Your task to perform on an android device: Clear the shopping cart on bestbuy. Add usb-c to usb-b to the cart on bestbuy Image 0: 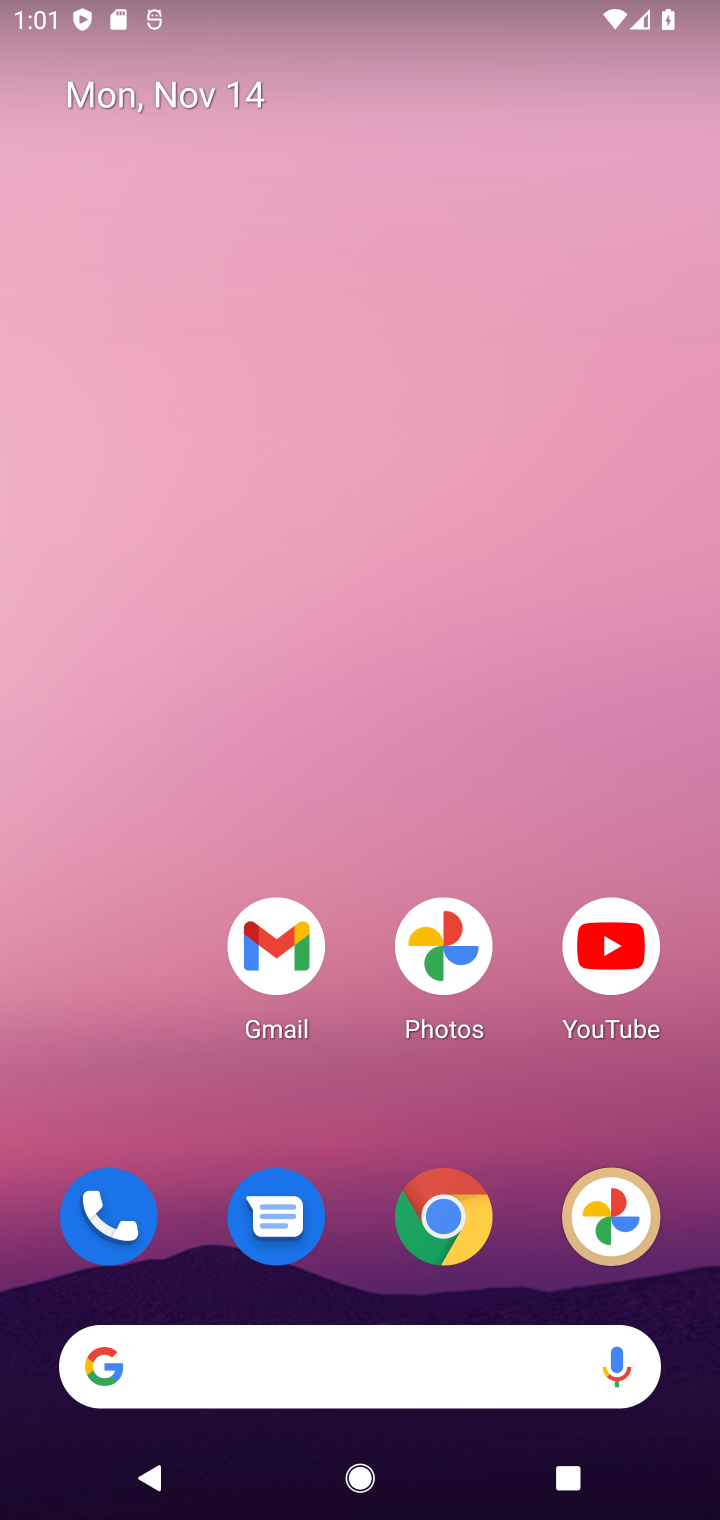
Step 0: click (441, 1204)
Your task to perform on an android device: Clear the shopping cart on bestbuy. Add usb-c to usb-b to the cart on bestbuy Image 1: 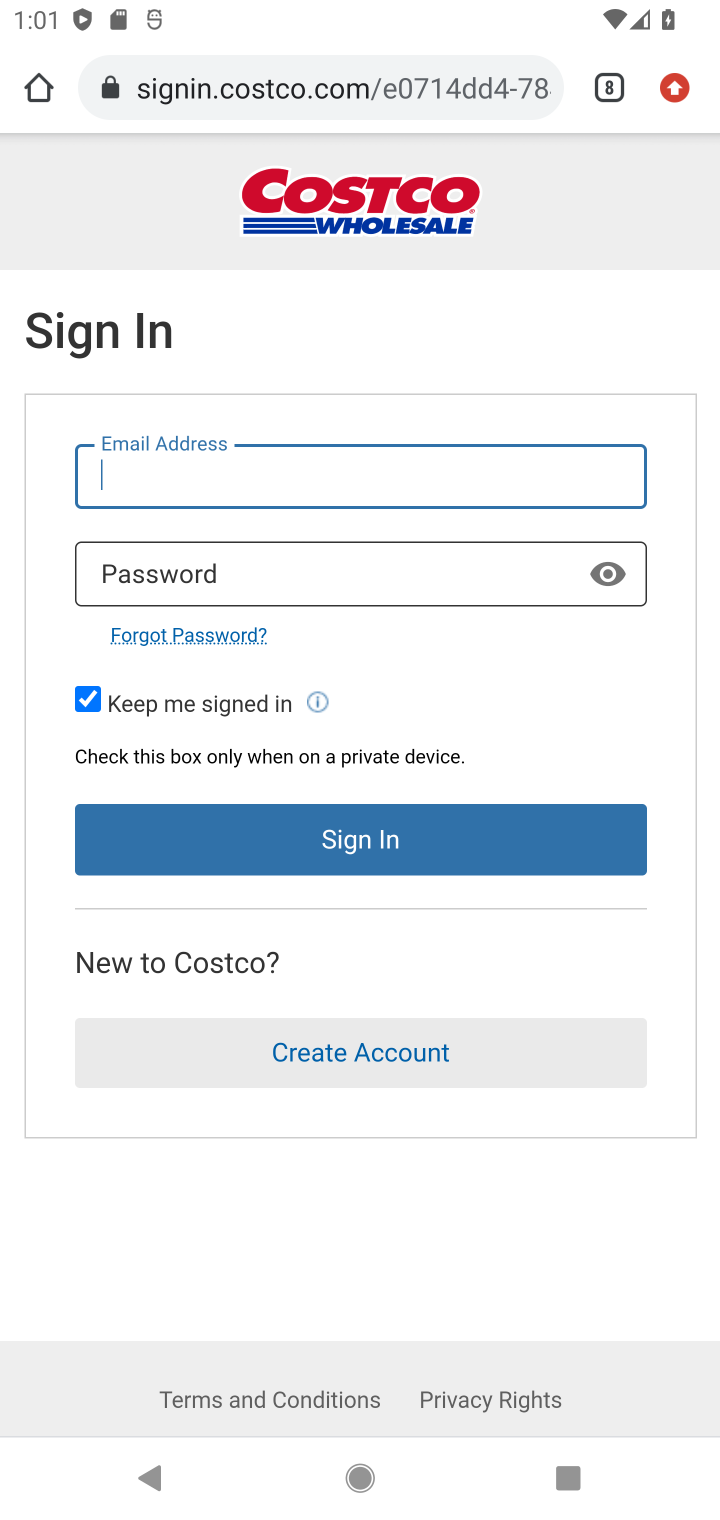
Step 1: click (602, 84)
Your task to perform on an android device: Clear the shopping cart on bestbuy. Add usb-c to usb-b to the cart on bestbuy Image 2: 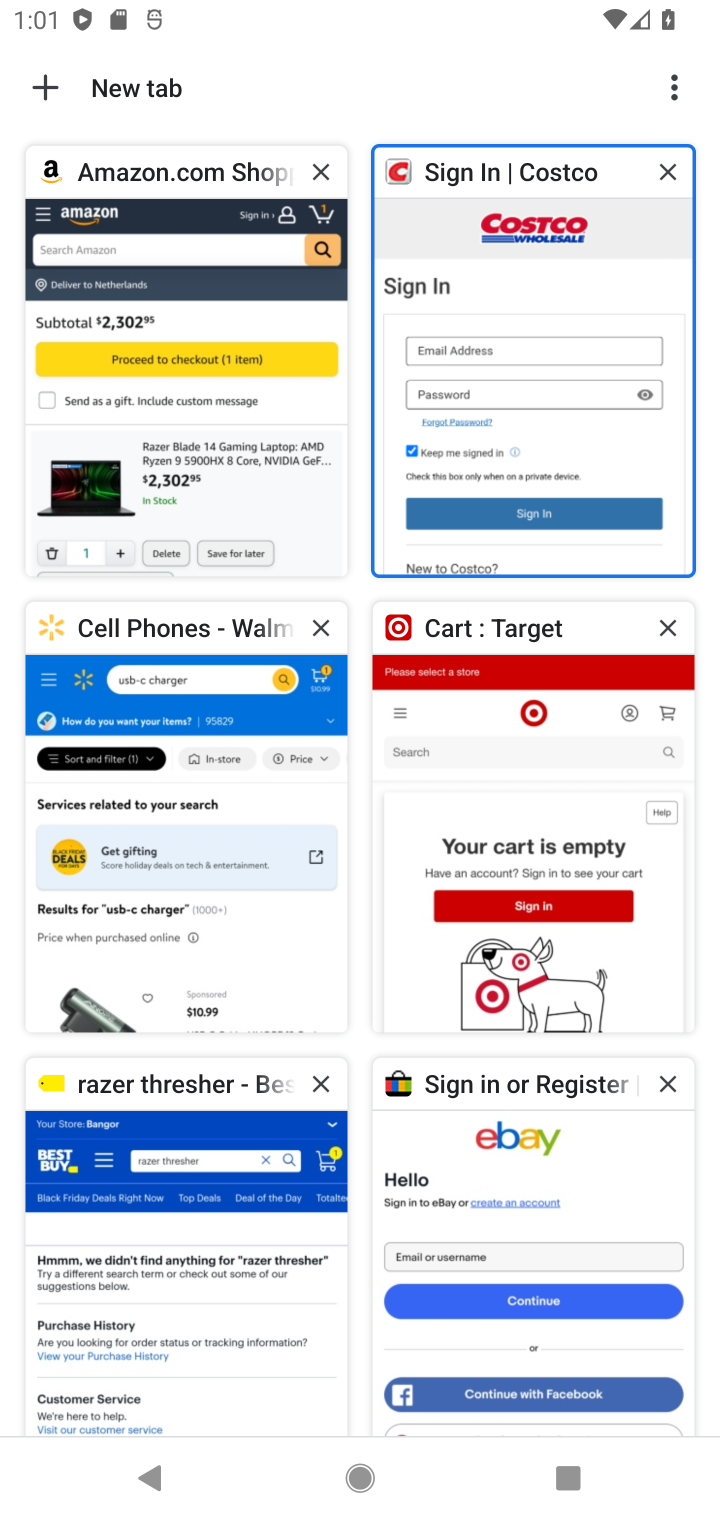
Step 2: click (91, 1319)
Your task to perform on an android device: Clear the shopping cart on bestbuy. Add usb-c to usb-b to the cart on bestbuy Image 3: 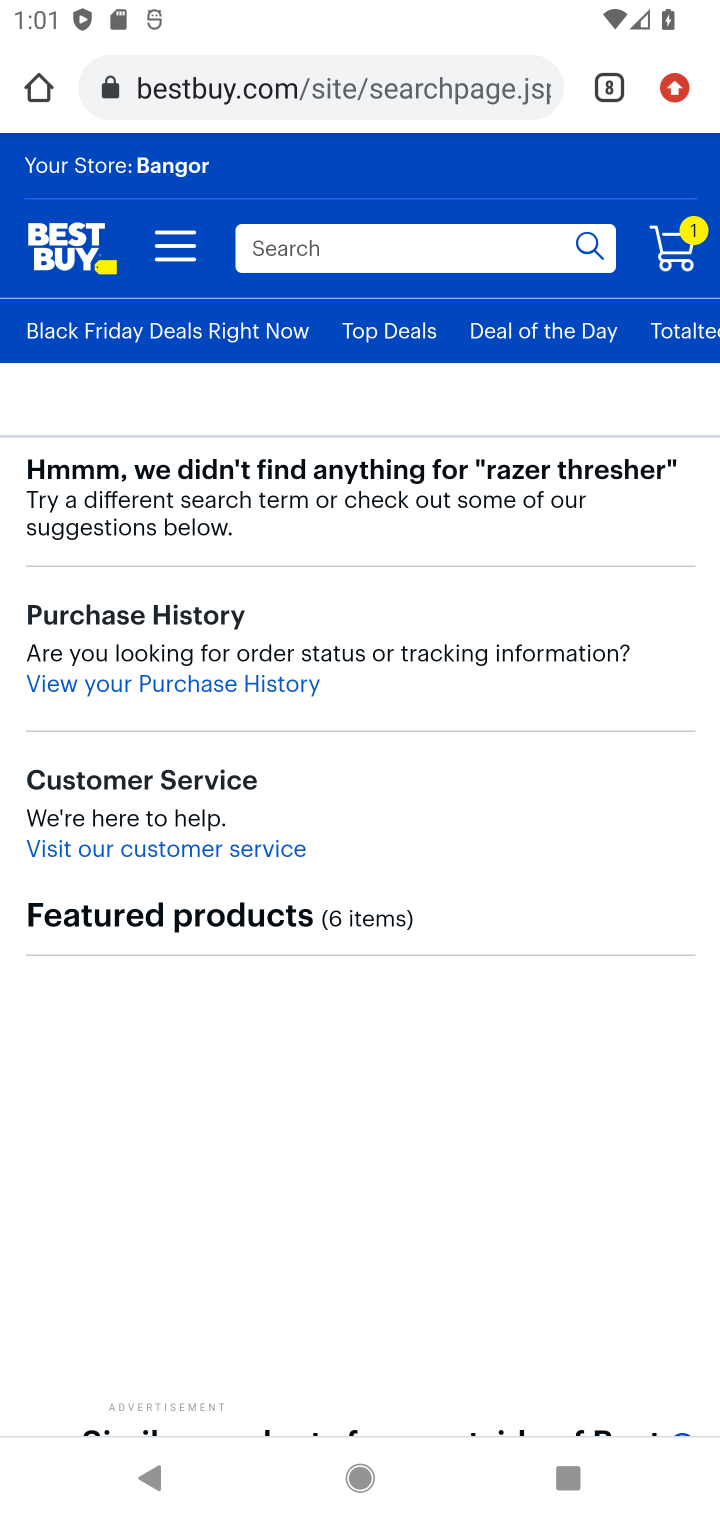
Step 3: click (352, 248)
Your task to perform on an android device: Clear the shopping cart on bestbuy. Add usb-c to usb-b to the cart on bestbuy Image 4: 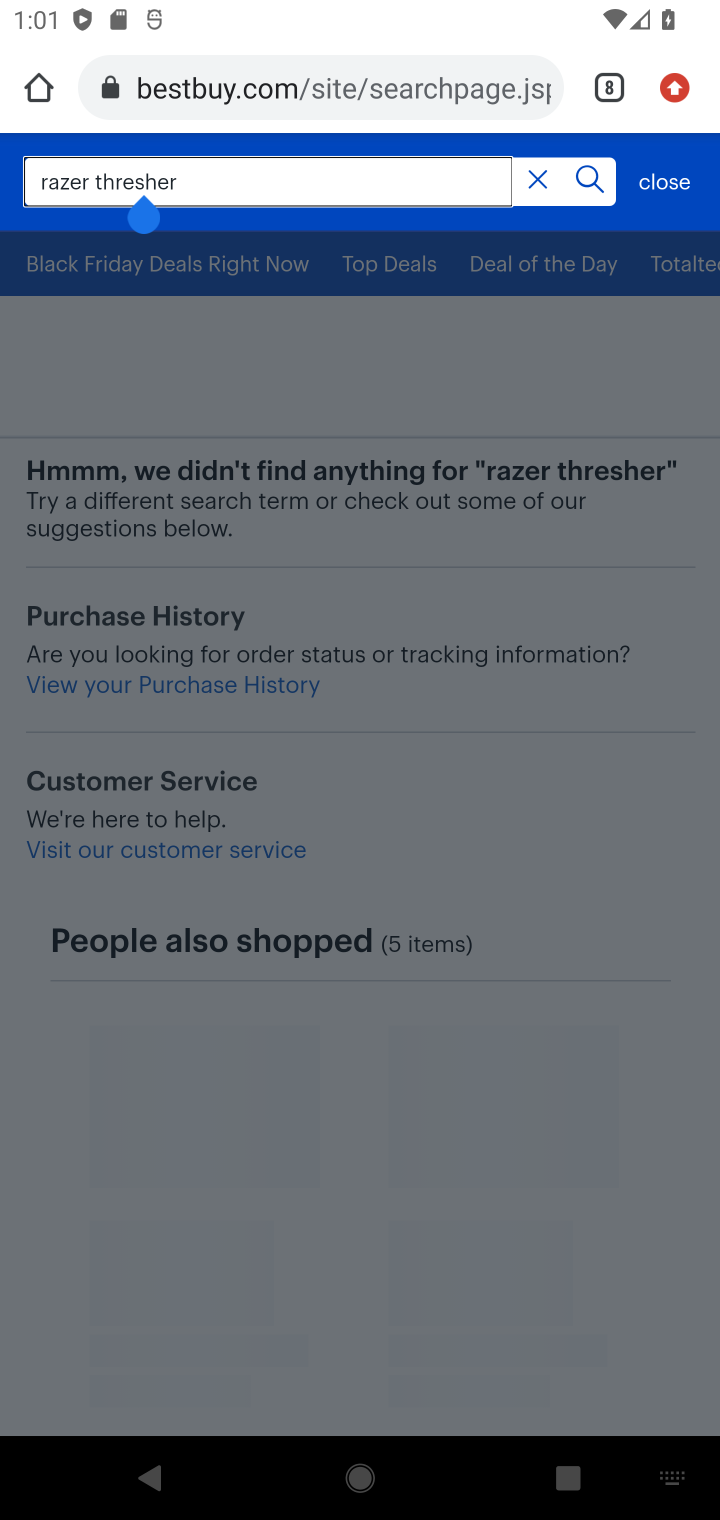
Step 4: type "usb-c to usb-b"
Your task to perform on an android device: Clear the shopping cart on bestbuy. Add usb-c to usb-b to the cart on bestbuy Image 5: 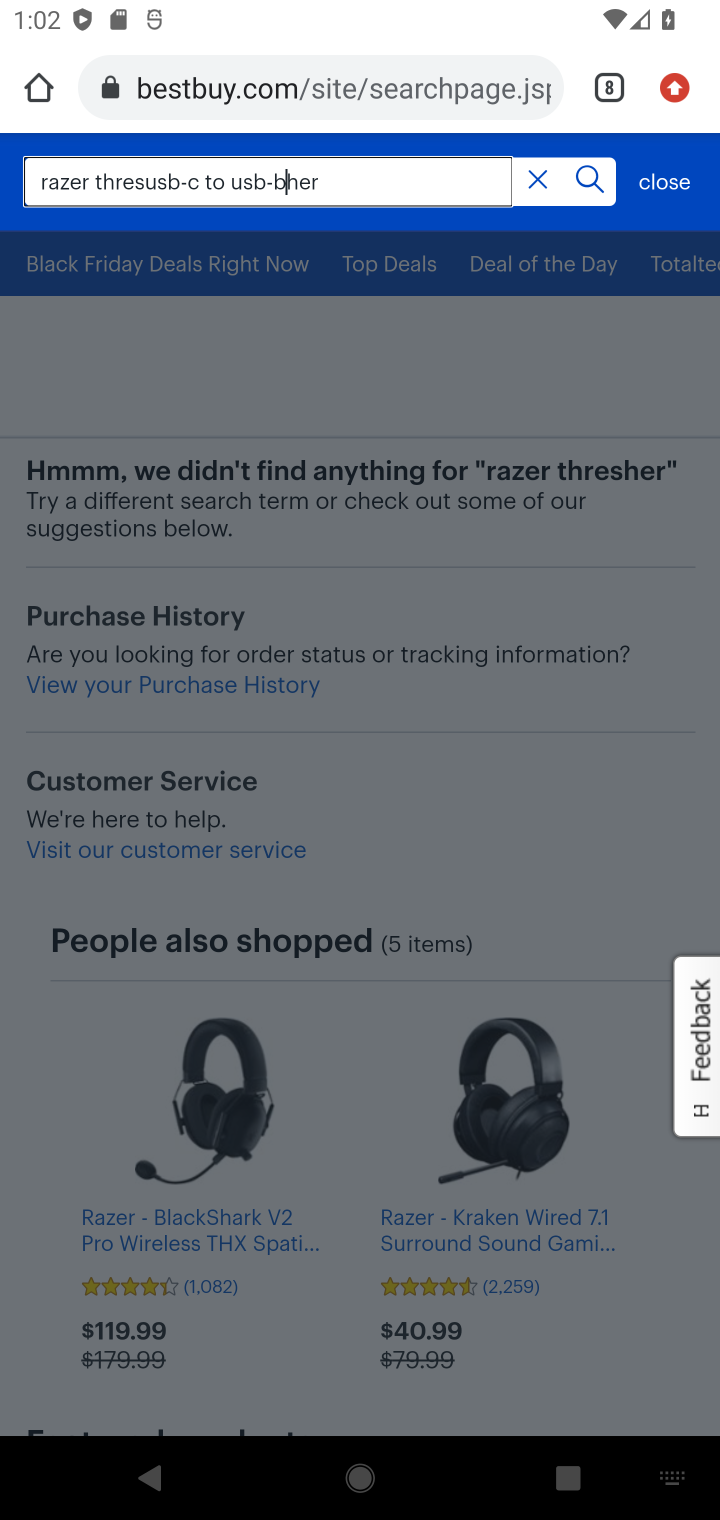
Step 5: click (543, 185)
Your task to perform on an android device: Clear the shopping cart on bestbuy. Add usb-c to usb-b to the cart on bestbuy Image 6: 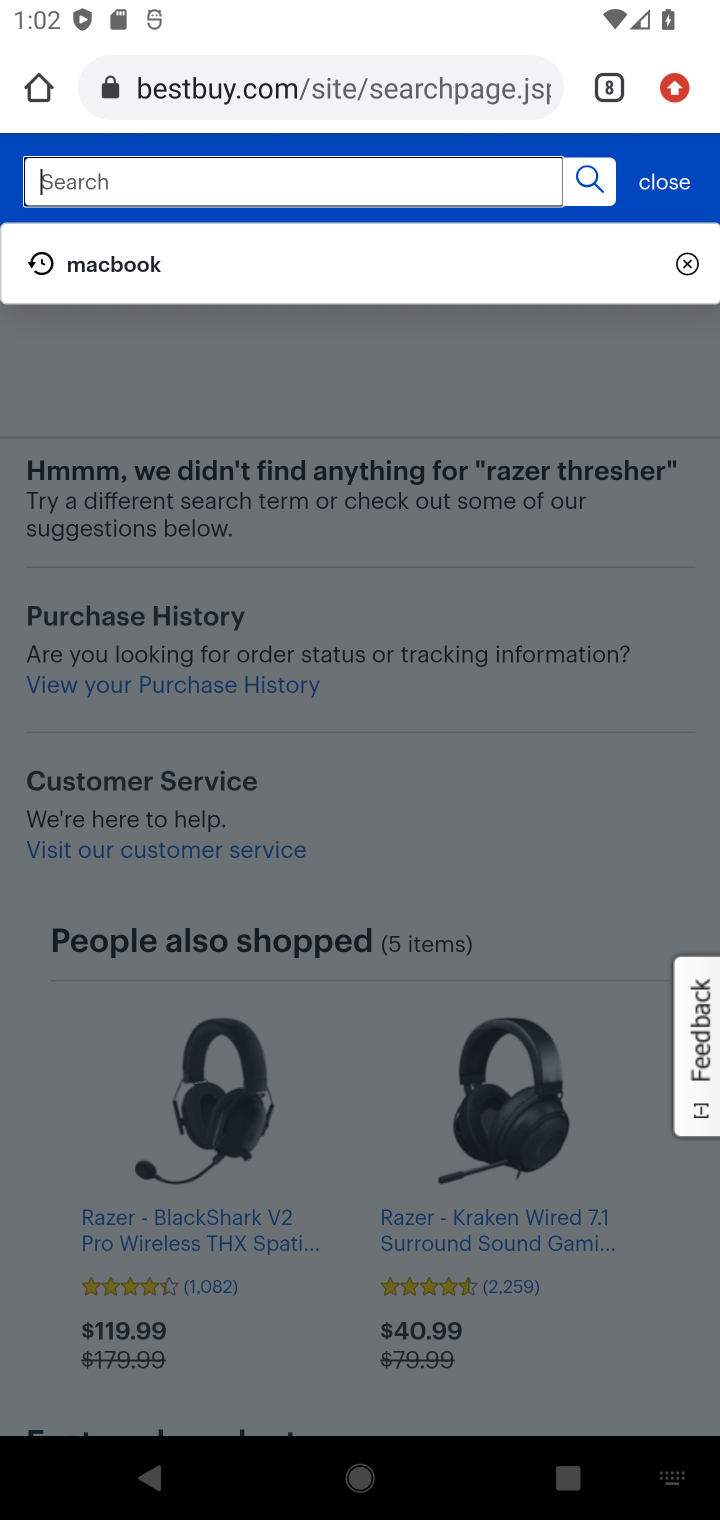
Step 6: type "usb-c to usb-b"
Your task to perform on an android device: Clear the shopping cart on bestbuy. Add usb-c to usb-b to the cart on bestbuy Image 7: 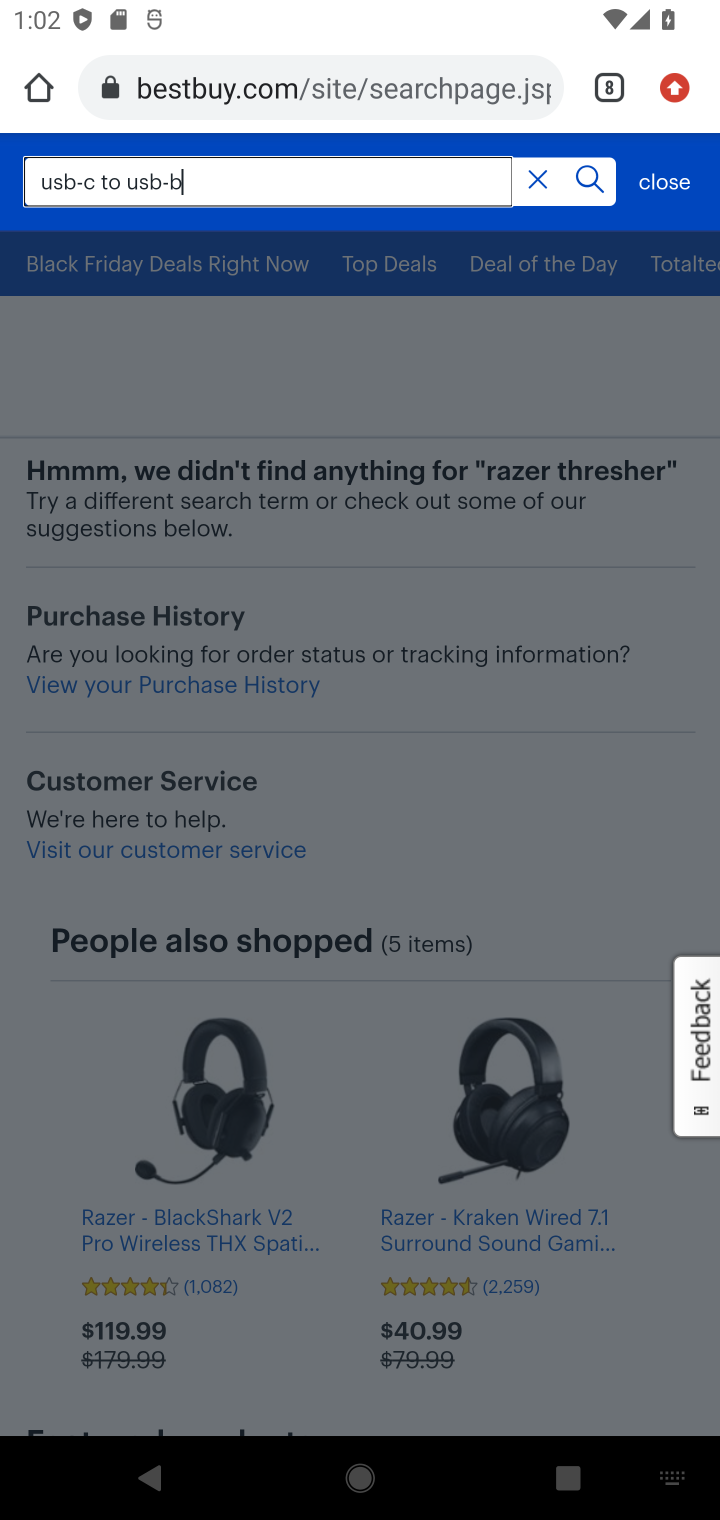
Step 7: click (581, 174)
Your task to perform on an android device: Clear the shopping cart on bestbuy. Add usb-c to usb-b to the cart on bestbuy Image 8: 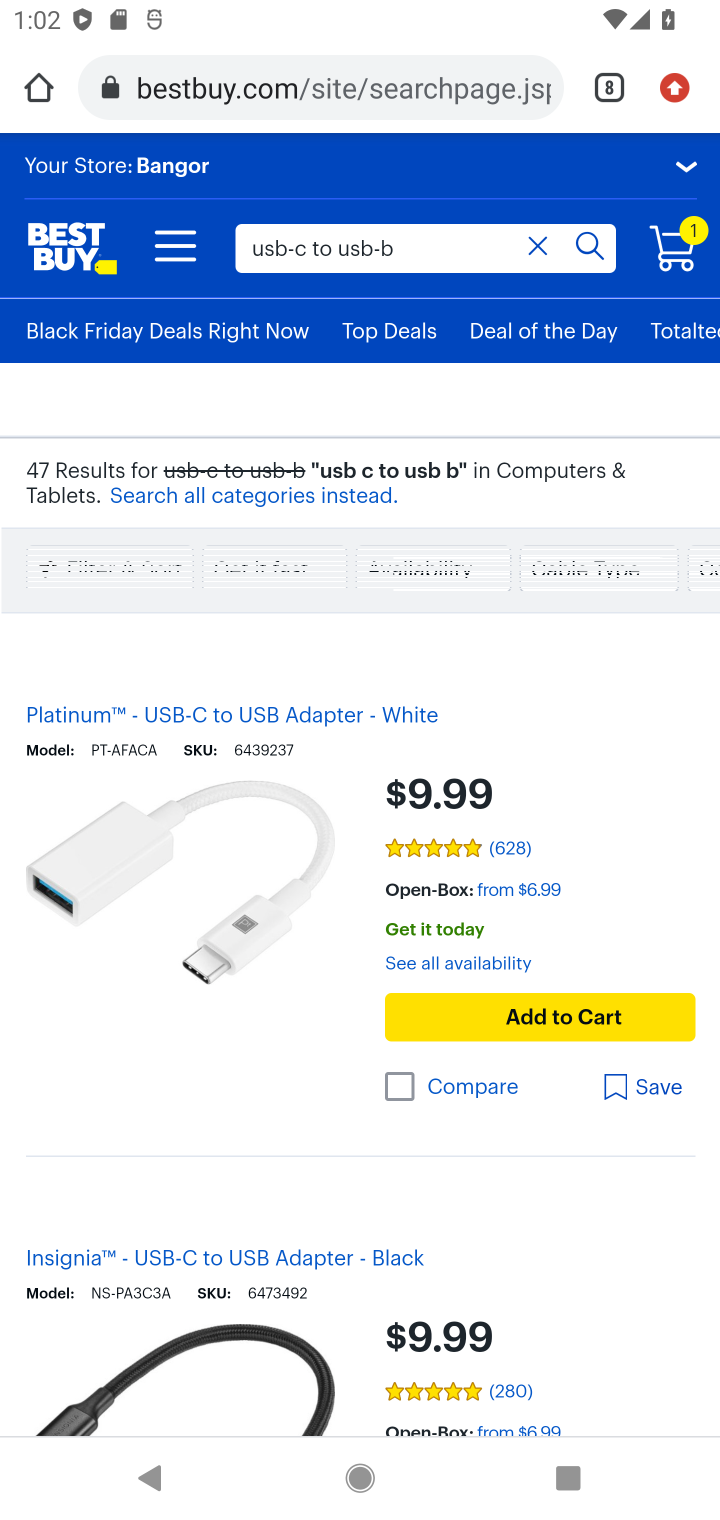
Step 8: click (562, 1021)
Your task to perform on an android device: Clear the shopping cart on bestbuy. Add usb-c to usb-b to the cart on bestbuy Image 9: 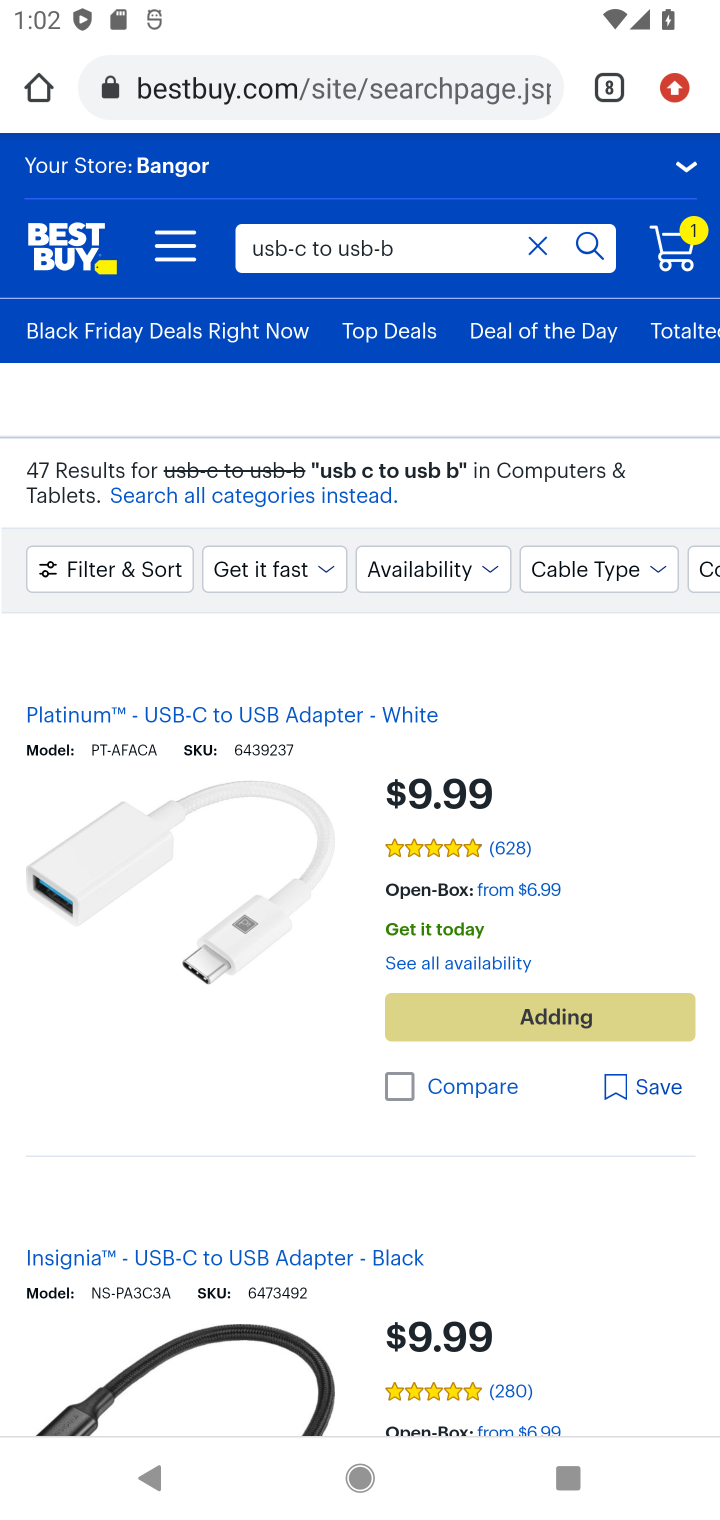
Step 9: click (568, 1018)
Your task to perform on an android device: Clear the shopping cart on bestbuy. Add usb-c to usb-b to the cart on bestbuy Image 10: 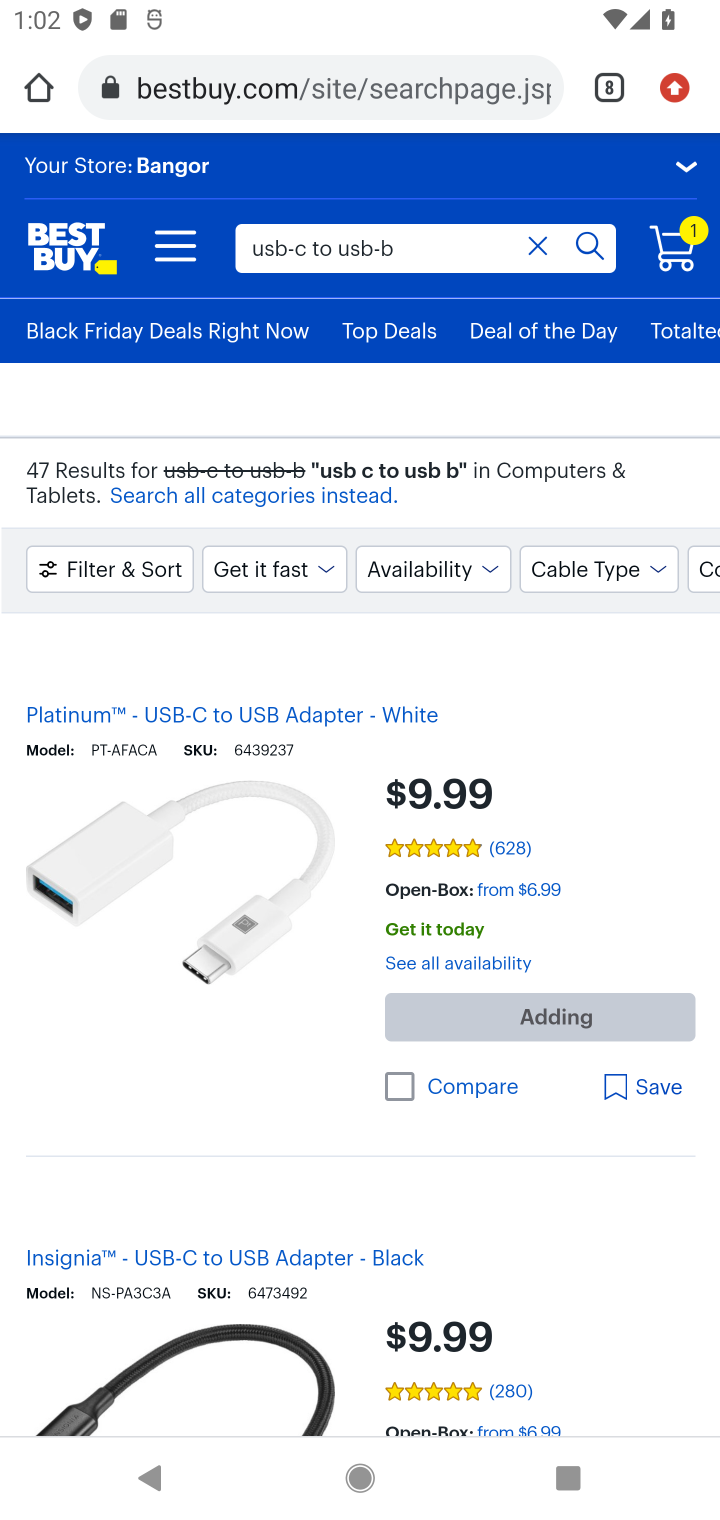
Step 10: task complete